Your task to perform on an android device: see creations saved in the google photos Image 0: 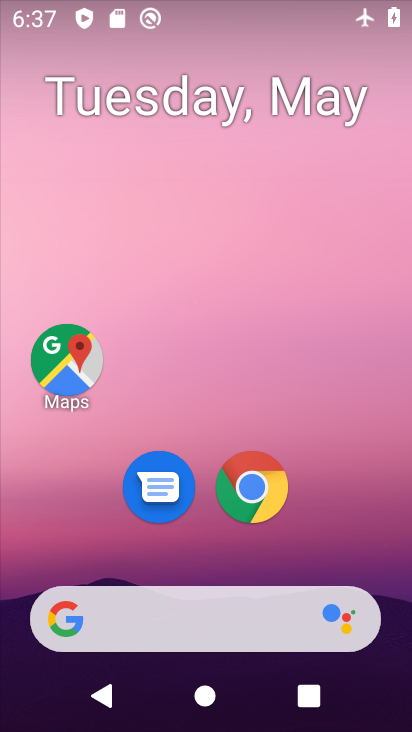
Step 0: drag from (361, 512) to (166, 27)
Your task to perform on an android device: see creations saved in the google photos Image 1: 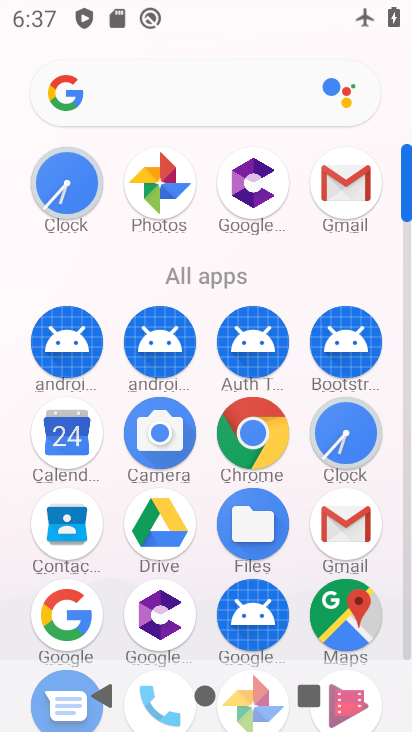
Step 1: click (163, 178)
Your task to perform on an android device: see creations saved in the google photos Image 2: 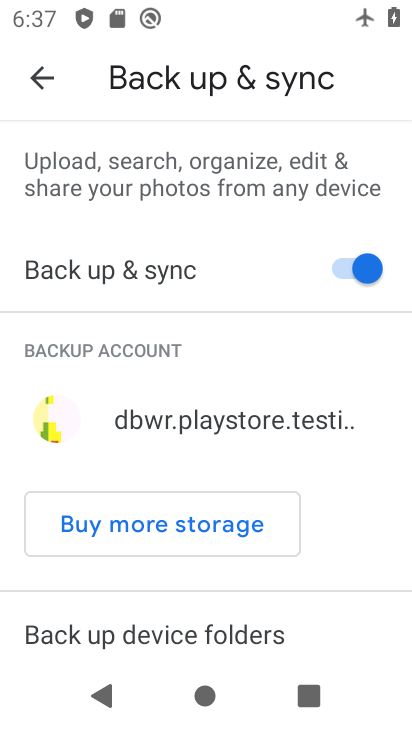
Step 2: click (48, 79)
Your task to perform on an android device: see creations saved in the google photos Image 3: 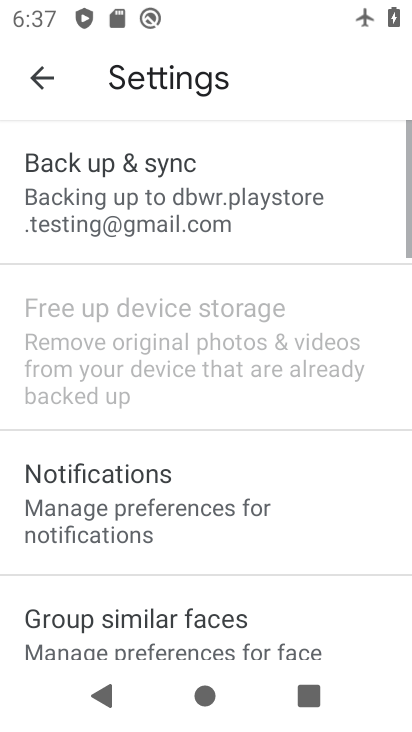
Step 3: click (48, 79)
Your task to perform on an android device: see creations saved in the google photos Image 4: 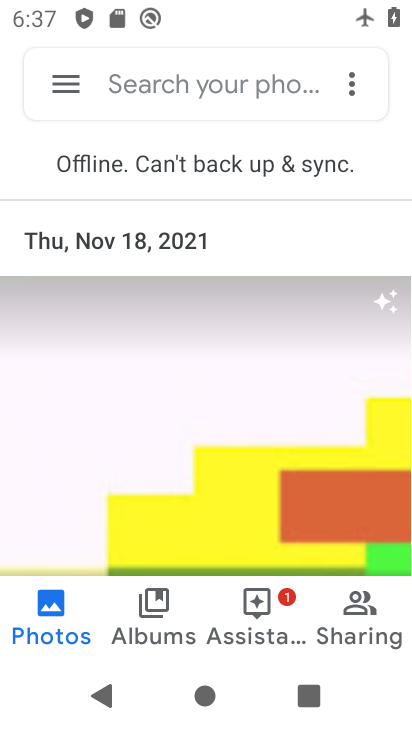
Step 4: click (168, 80)
Your task to perform on an android device: see creations saved in the google photos Image 5: 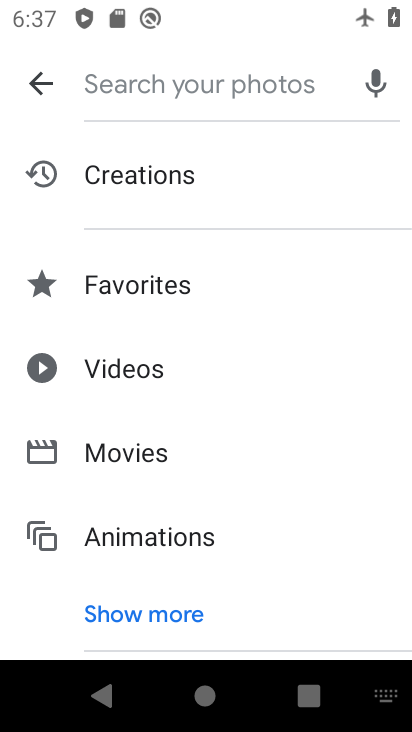
Step 5: click (141, 171)
Your task to perform on an android device: see creations saved in the google photos Image 6: 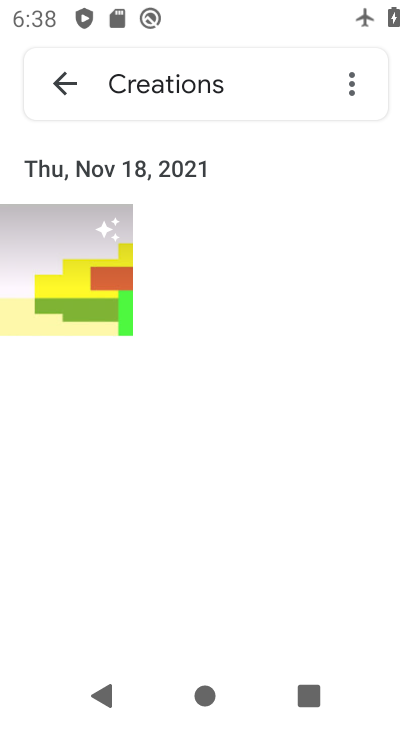
Step 6: task complete